Your task to perform on an android device: Look up the best rated headphones on Amazon. Image 0: 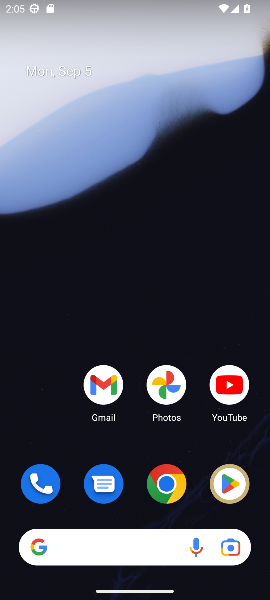
Step 0: click (174, 484)
Your task to perform on an android device: Look up the best rated headphones on Amazon. Image 1: 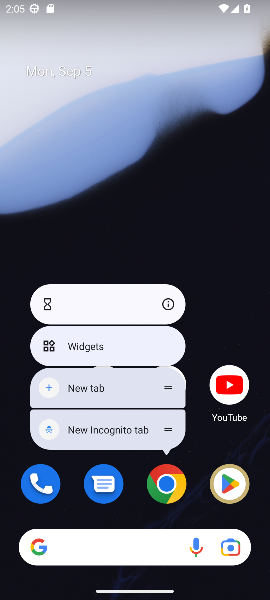
Step 1: click (168, 485)
Your task to perform on an android device: Look up the best rated headphones on Amazon. Image 2: 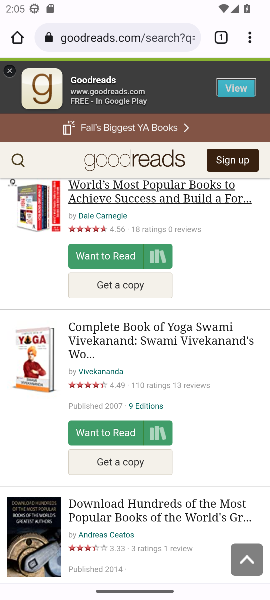
Step 2: click (126, 33)
Your task to perform on an android device: Look up the best rated headphones on Amazon. Image 3: 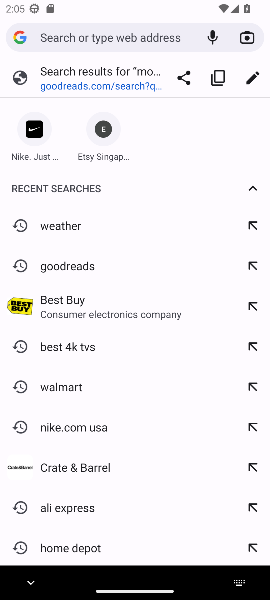
Step 3: type "Amazon"
Your task to perform on an android device: Look up the best rated headphones on Amazon. Image 4: 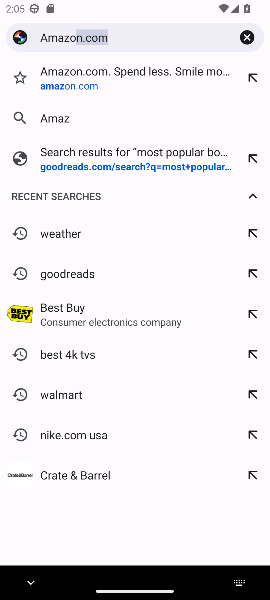
Step 4: press enter
Your task to perform on an android device: Look up the best rated headphones on Amazon. Image 5: 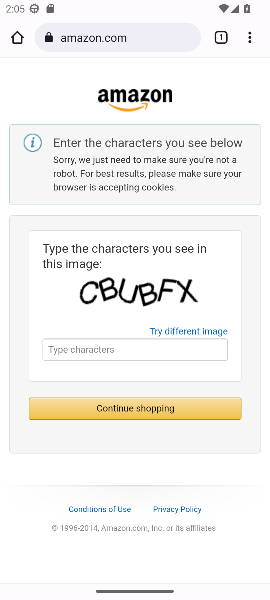
Step 5: press back button
Your task to perform on an android device: Look up the best rated headphones on Amazon. Image 6: 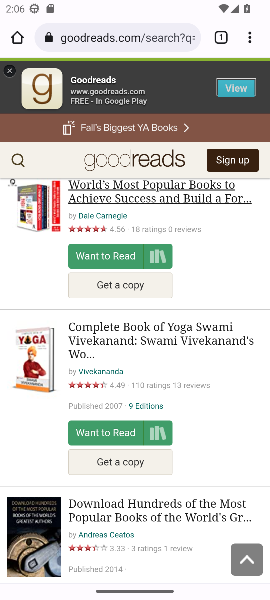
Step 6: click (112, 22)
Your task to perform on an android device: Look up the best rated headphones on Amazon. Image 7: 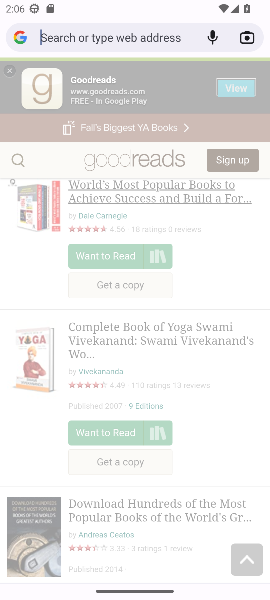
Step 7: click (102, 39)
Your task to perform on an android device: Look up the best rated headphones on Amazon. Image 8: 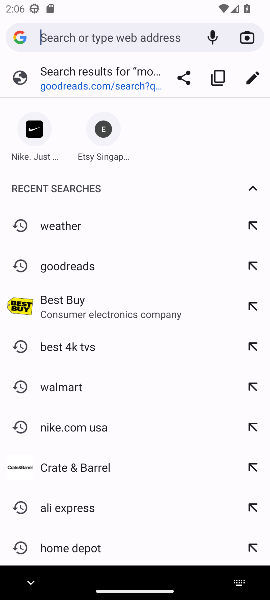
Step 8: drag from (145, 537) to (188, 289)
Your task to perform on an android device: Look up the best rated headphones on Amazon. Image 9: 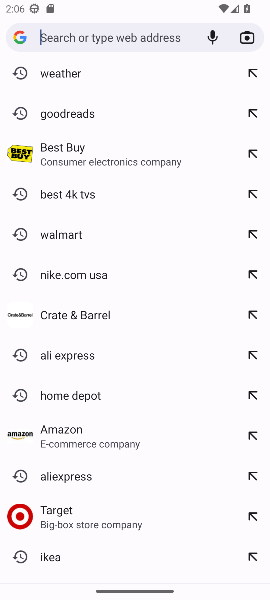
Step 9: click (46, 426)
Your task to perform on an android device: Look up the best rated headphones on Amazon. Image 10: 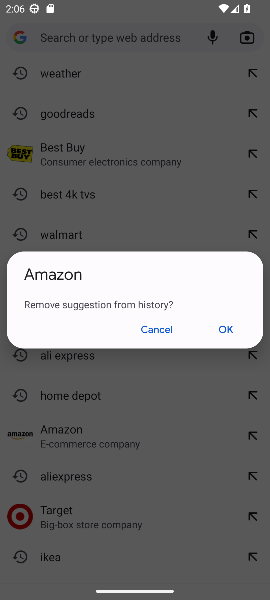
Step 10: click (43, 429)
Your task to perform on an android device: Look up the best rated headphones on Amazon. Image 11: 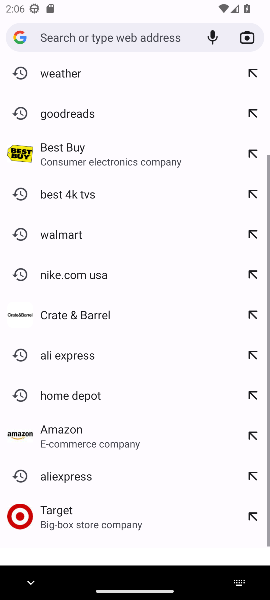
Step 11: click (158, 331)
Your task to perform on an android device: Look up the best rated headphones on Amazon. Image 12: 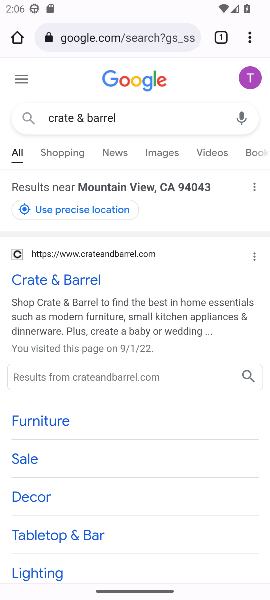
Step 12: click (148, 32)
Your task to perform on an android device: Look up the best rated headphones on Amazon. Image 13: 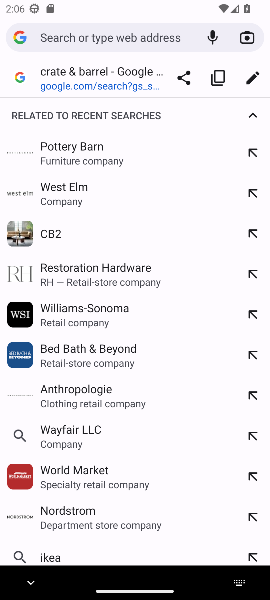
Step 13: type "Amazon"
Your task to perform on an android device: Look up the best rated headphones on Amazon. Image 14: 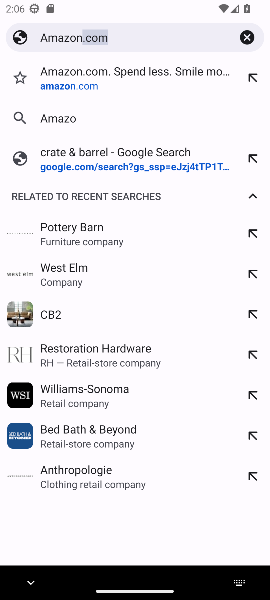
Step 14: press enter
Your task to perform on an android device: Look up the best rated headphones on Amazon. Image 15: 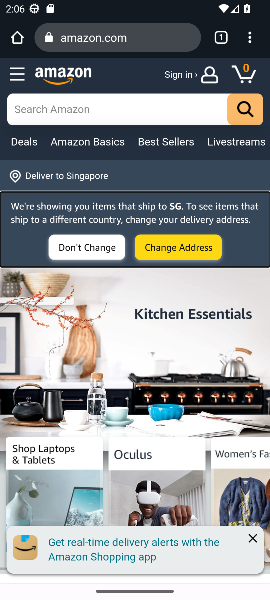
Step 15: click (90, 113)
Your task to perform on an android device: Look up the best rated headphones on Amazon. Image 16: 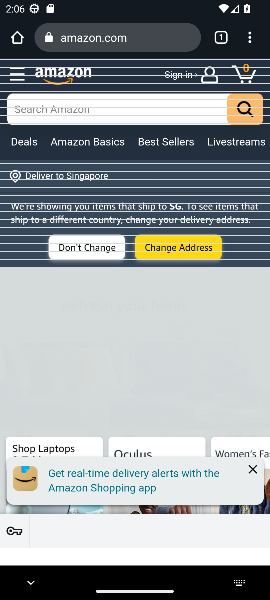
Step 16: click (98, 109)
Your task to perform on an android device: Look up the best rated headphones on Amazon. Image 17: 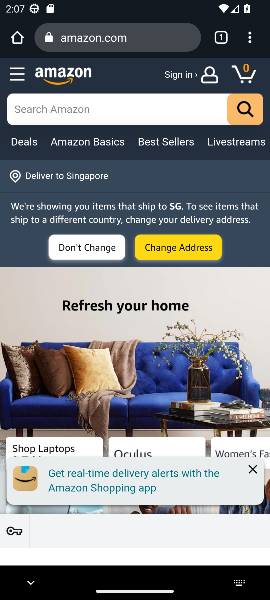
Step 17: type "headphones"
Your task to perform on an android device: Look up the best rated headphones on Amazon. Image 18: 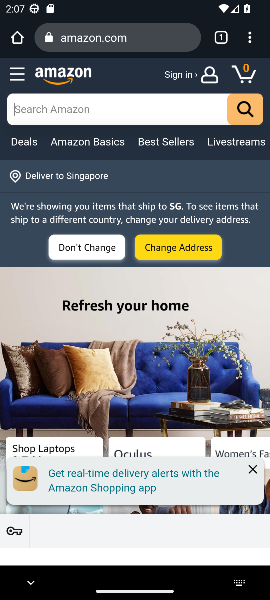
Step 18: press enter
Your task to perform on an android device: Look up the best rated headphones on Amazon. Image 19: 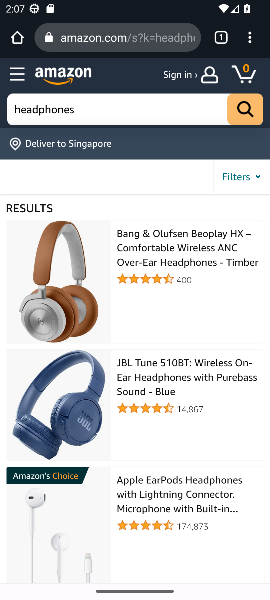
Step 19: click (230, 174)
Your task to perform on an android device: Look up the best rated headphones on Amazon. Image 20: 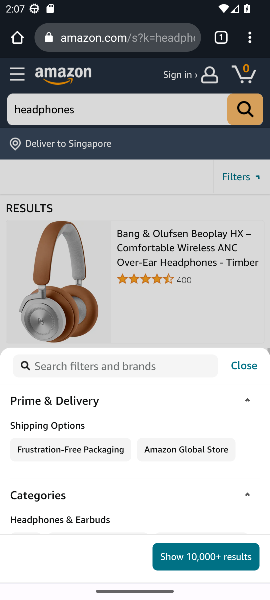
Step 20: drag from (145, 429) to (184, 294)
Your task to perform on an android device: Look up the best rated headphones on Amazon. Image 21: 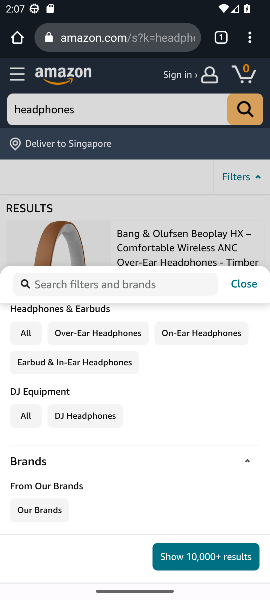
Step 21: drag from (128, 439) to (167, 258)
Your task to perform on an android device: Look up the best rated headphones on Amazon. Image 22: 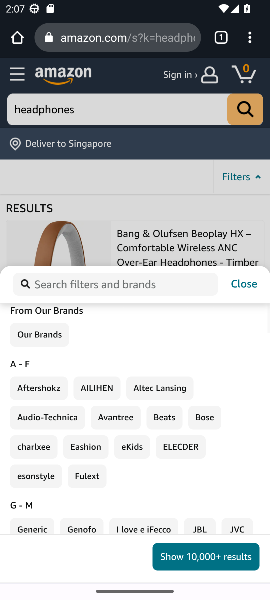
Step 22: drag from (133, 447) to (192, 261)
Your task to perform on an android device: Look up the best rated headphones on Amazon. Image 23: 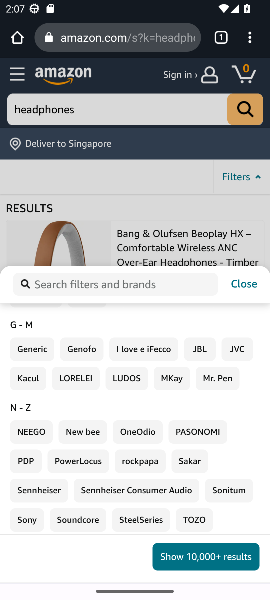
Step 23: drag from (127, 457) to (165, 331)
Your task to perform on an android device: Look up the best rated headphones on Amazon. Image 24: 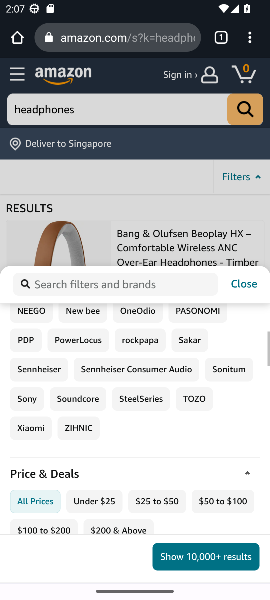
Step 24: drag from (113, 492) to (193, 237)
Your task to perform on an android device: Look up the best rated headphones on Amazon. Image 25: 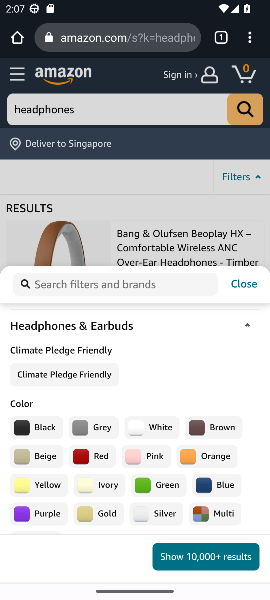
Step 25: drag from (134, 477) to (182, 248)
Your task to perform on an android device: Look up the best rated headphones on Amazon. Image 26: 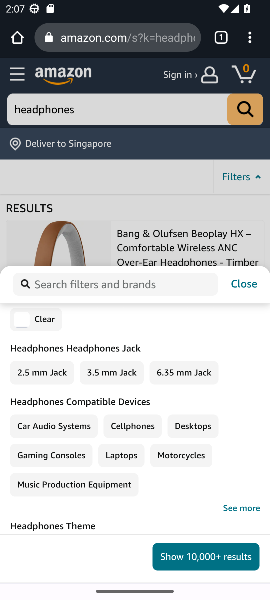
Step 26: drag from (132, 505) to (178, 287)
Your task to perform on an android device: Look up the best rated headphones on Amazon. Image 27: 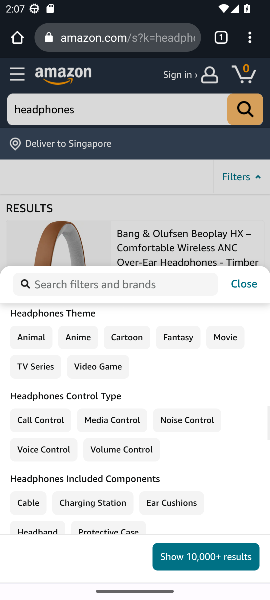
Step 27: drag from (135, 505) to (193, 280)
Your task to perform on an android device: Look up the best rated headphones on Amazon. Image 28: 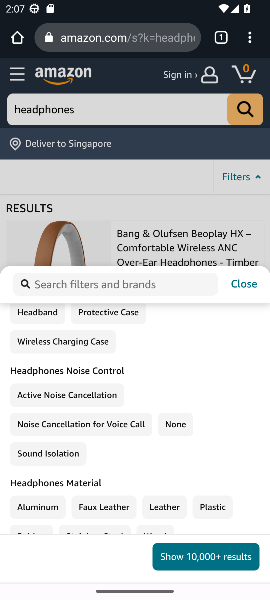
Step 28: drag from (143, 470) to (205, 316)
Your task to perform on an android device: Look up the best rated headphones on Amazon. Image 29: 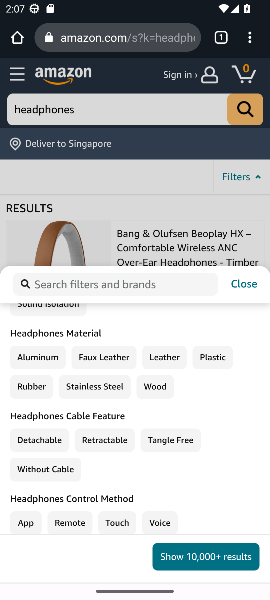
Step 29: drag from (128, 511) to (186, 368)
Your task to perform on an android device: Look up the best rated headphones on Amazon. Image 30: 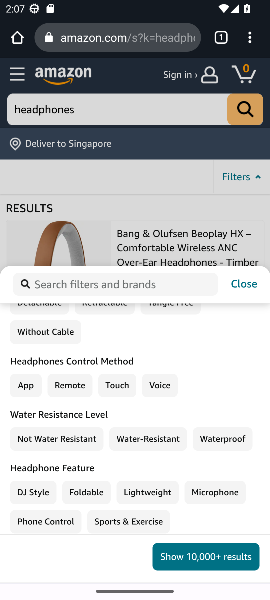
Step 30: drag from (85, 507) to (266, 200)
Your task to perform on an android device: Look up the best rated headphones on Amazon. Image 31: 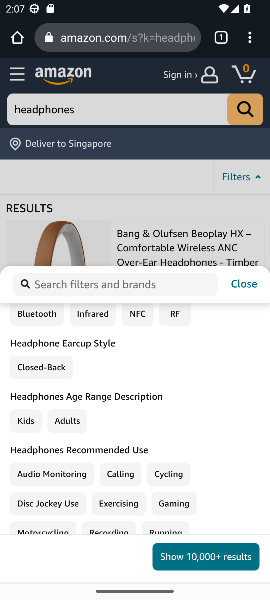
Step 31: drag from (131, 508) to (238, 238)
Your task to perform on an android device: Look up the best rated headphones on Amazon. Image 32: 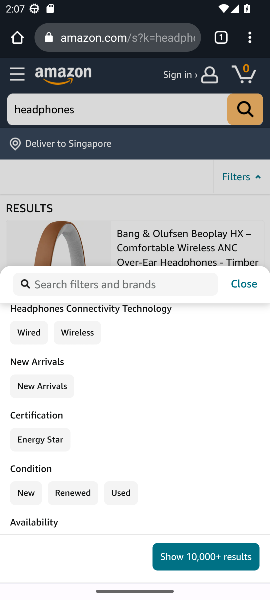
Step 32: drag from (152, 448) to (228, 237)
Your task to perform on an android device: Look up the best rated headphones on Amazon. Image 33: 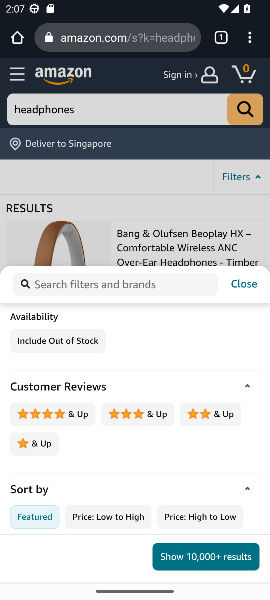
Step 33: click (50, 413)
Your task to perform on an android device: Look up the best rated headphones on Amazon. Image 34: 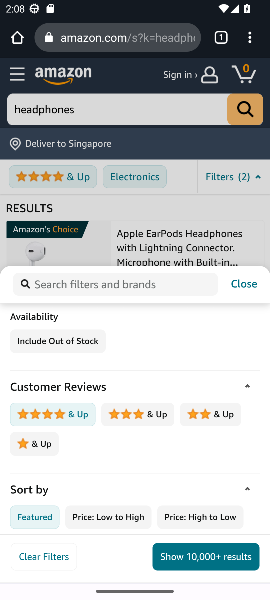
Step 34: click (203, 556)
Your task to perform on an android device: Look up the best rated headphones on Amazon. Image 35: 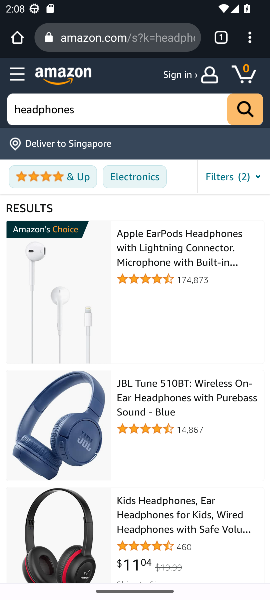
Step 35: task complete